Your task to perform on an android device: Open wifi settings Image 0: 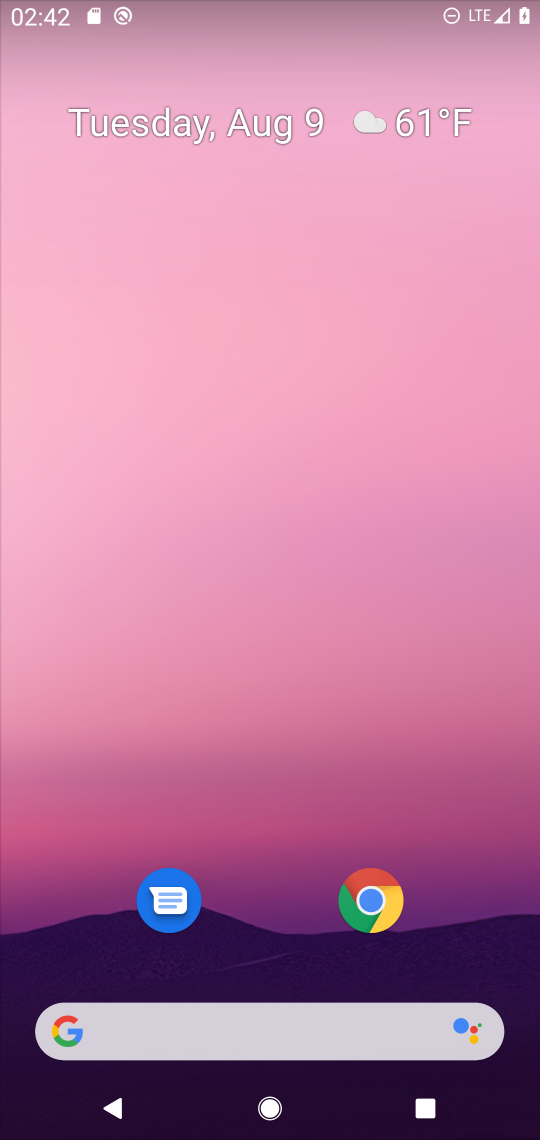
Step 0: drag from (310, 955) to (291, 304)
Your task to perform on an android device: Open wifi settings Image 1: 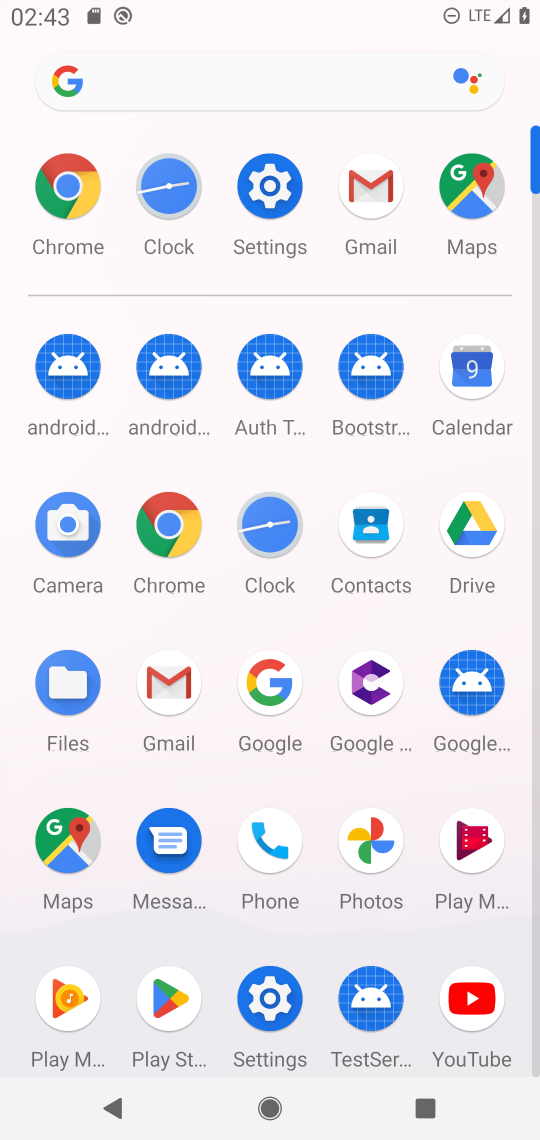
Step 1: click (271, 175)
Your task to perform on an android device: Open wifi settings Image 2: 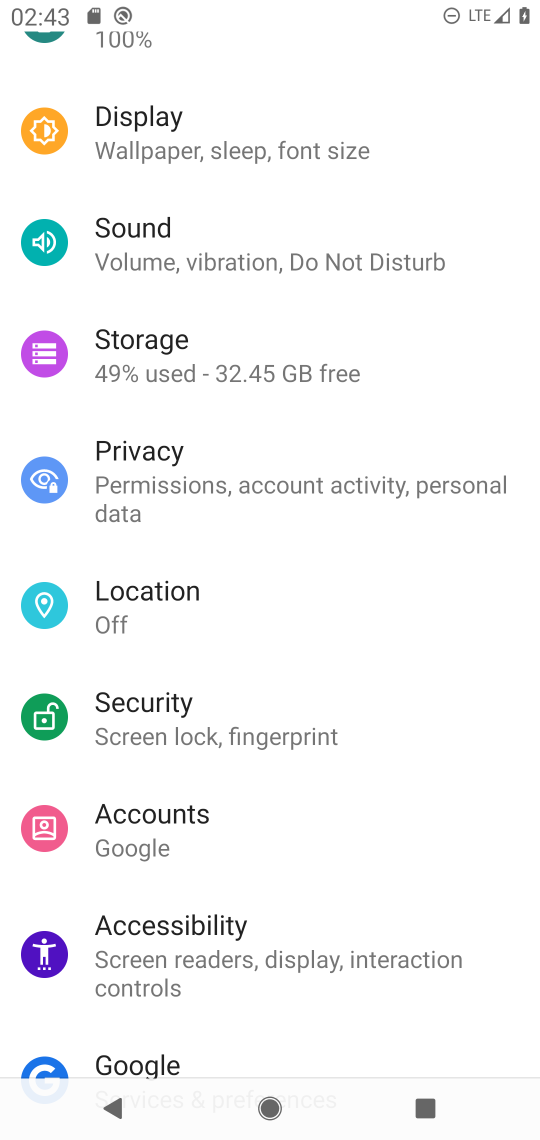
Step 2: drag from (424, 772) to (428, 499)
Your task to perform on an android device: Open wifi settings Image 3: 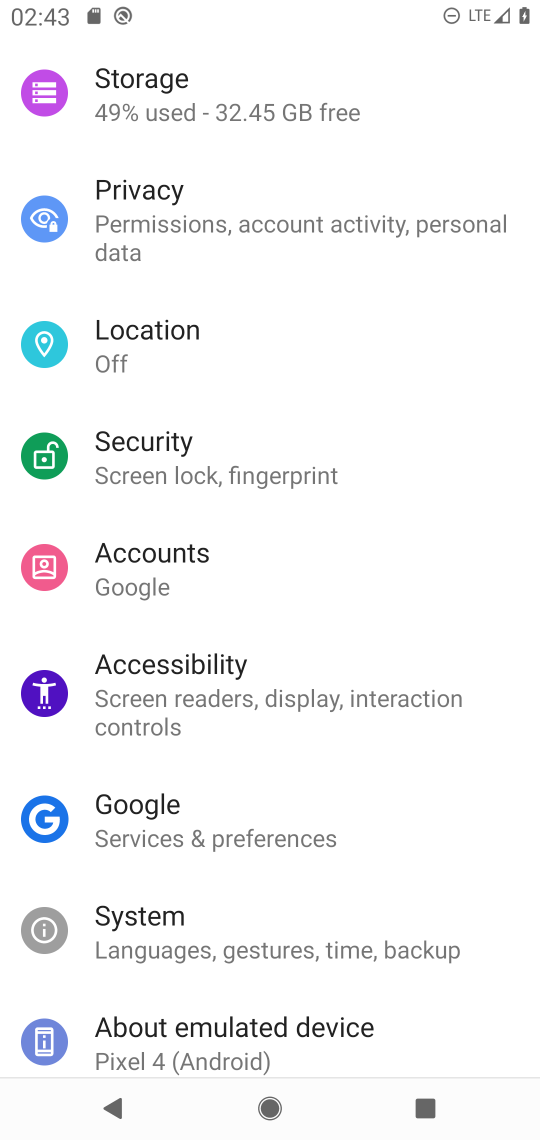
Step 3: drag from (470, 851) to (443, 529)
Your task to perform on an android device: Open wifi settings Image 4: 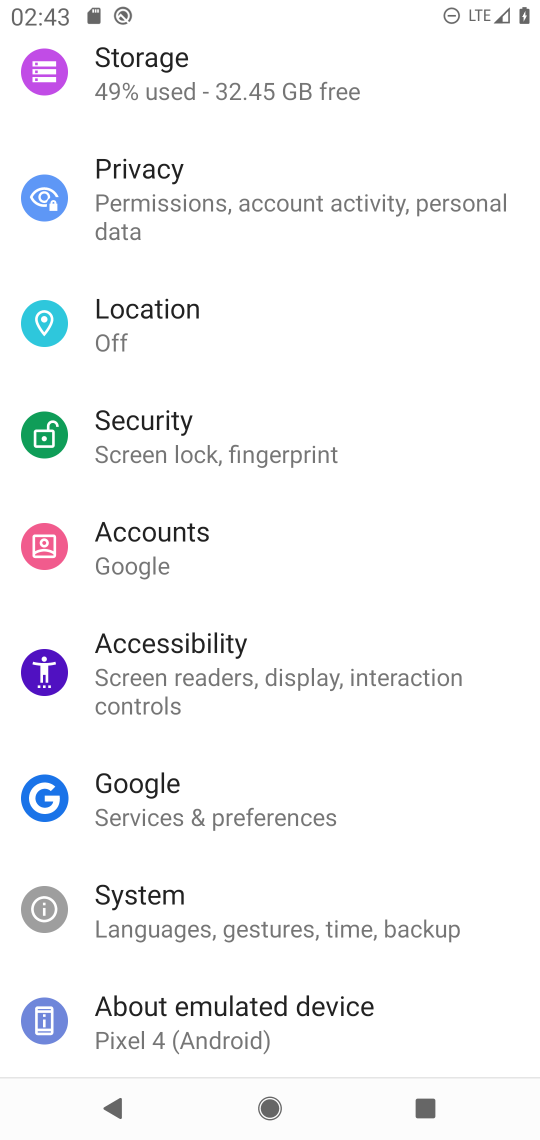
Step 4: drag from (424, 638) to (424, 390)
Your task to perform on an android device: Open wifi settings Image 5: 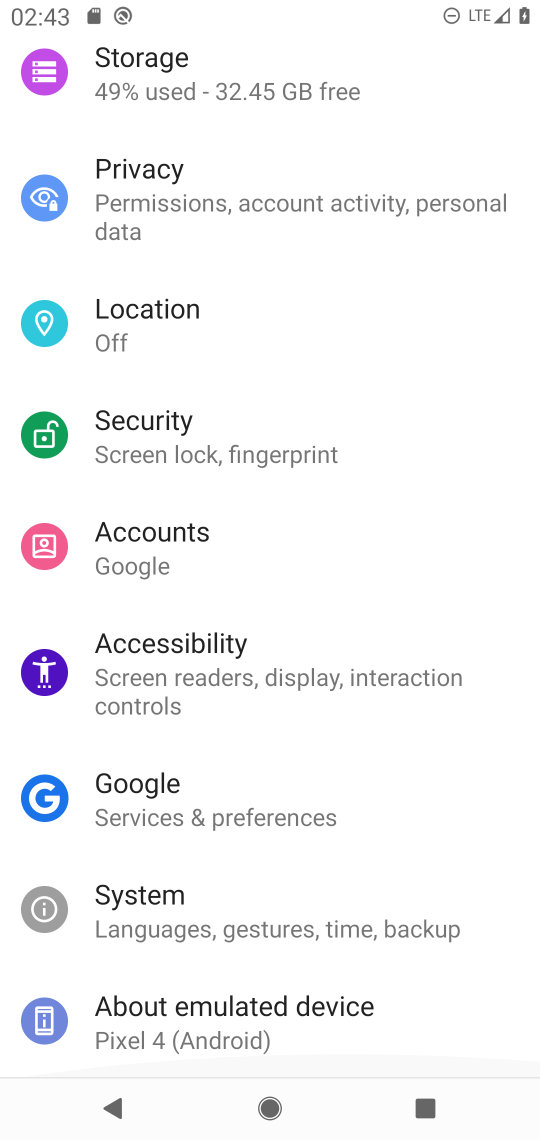
Step 5: drag from (417, 333) to (414, 482)
Your task to perform on an android device: Open wifi settings Image 6: 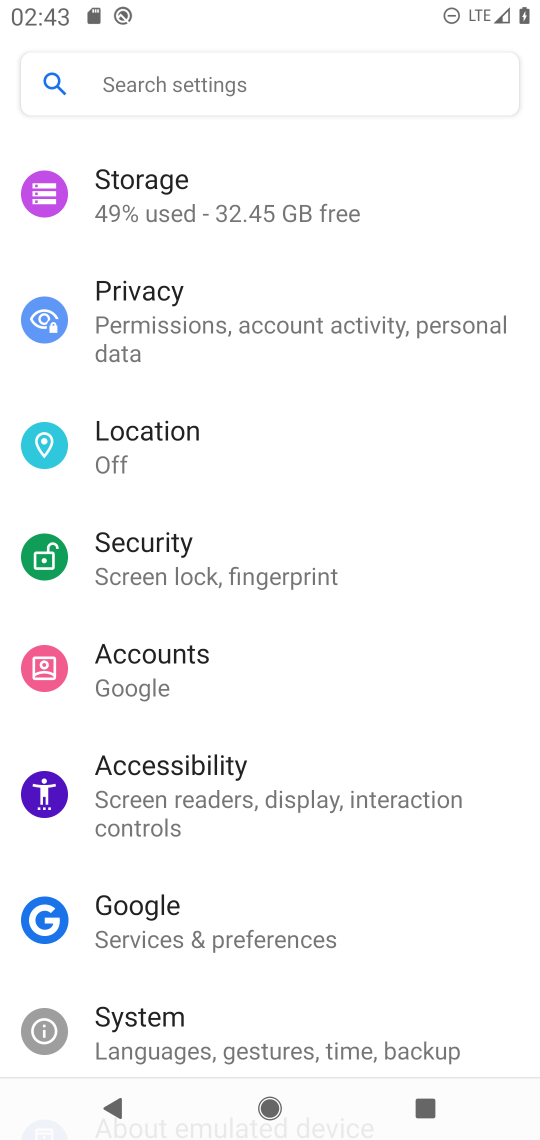
Step 6: drag from (428, 248) to (447, 514)
Your task to perform on an android device: Open wifi settings Image 7: 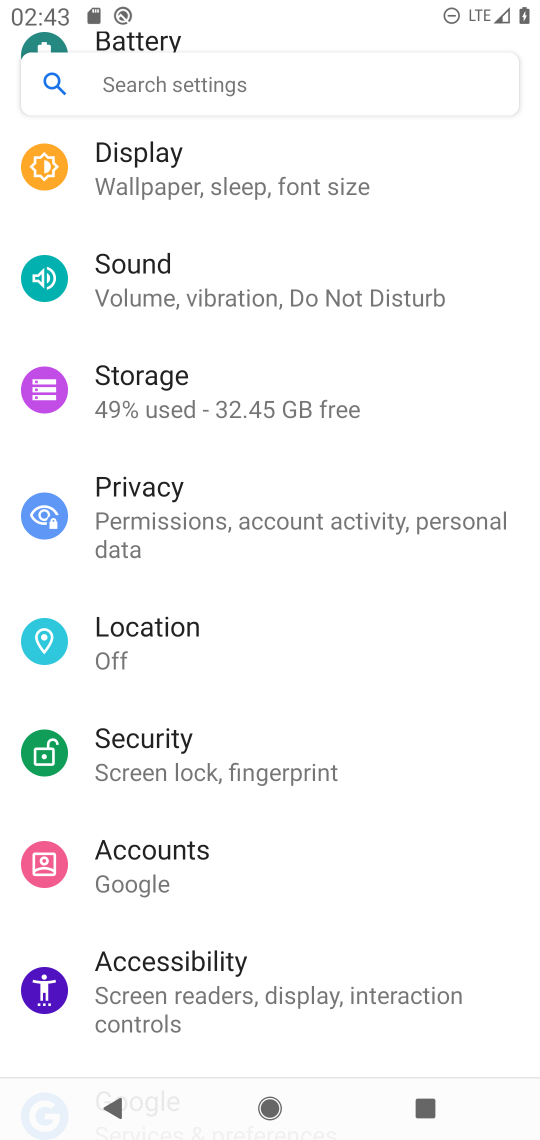
Step 7: drag from (470, 223) to (473, 423)
Your task to perform on an android device: Open wifi settings Image 8: 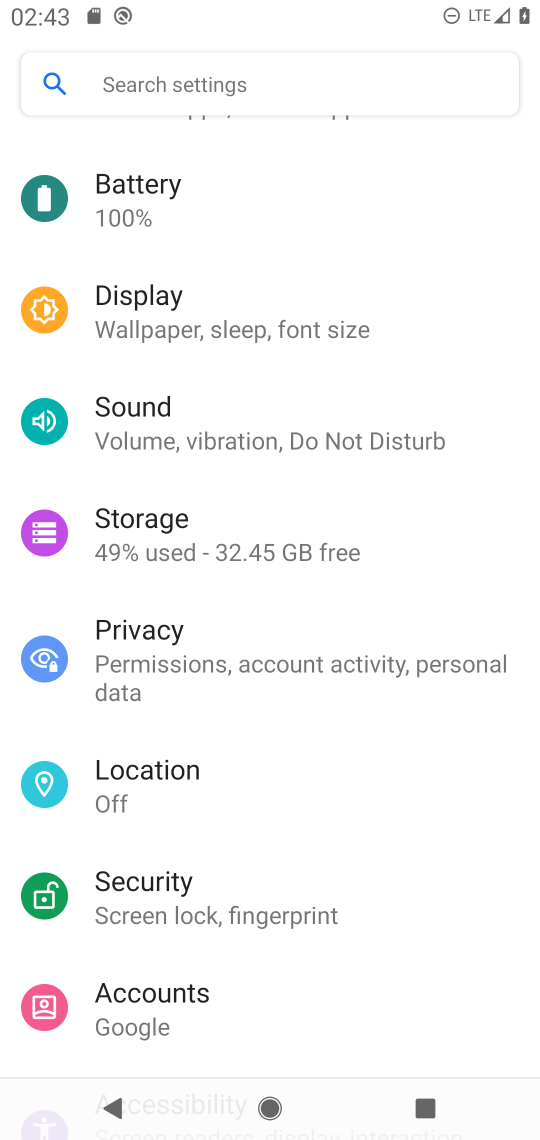
Step 8: drag from (413, 199) to (413, 545)
Your task to perform on an android device: Open wifi settings Image 9: 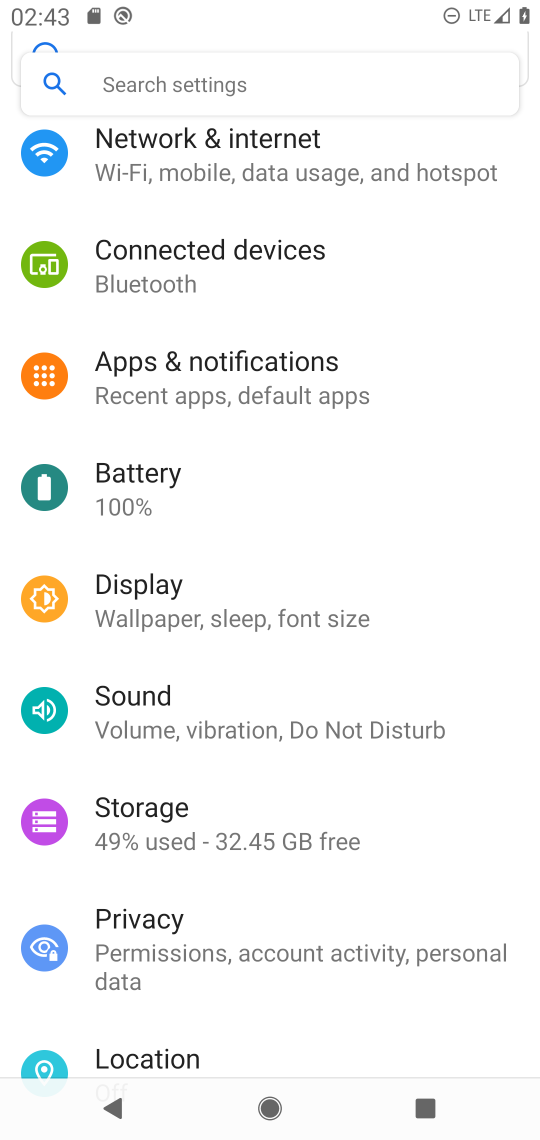
Step 9: drag from (465, 233) to (451, 503)
Your task to perform on an android device: Open wifi settings Image 10: 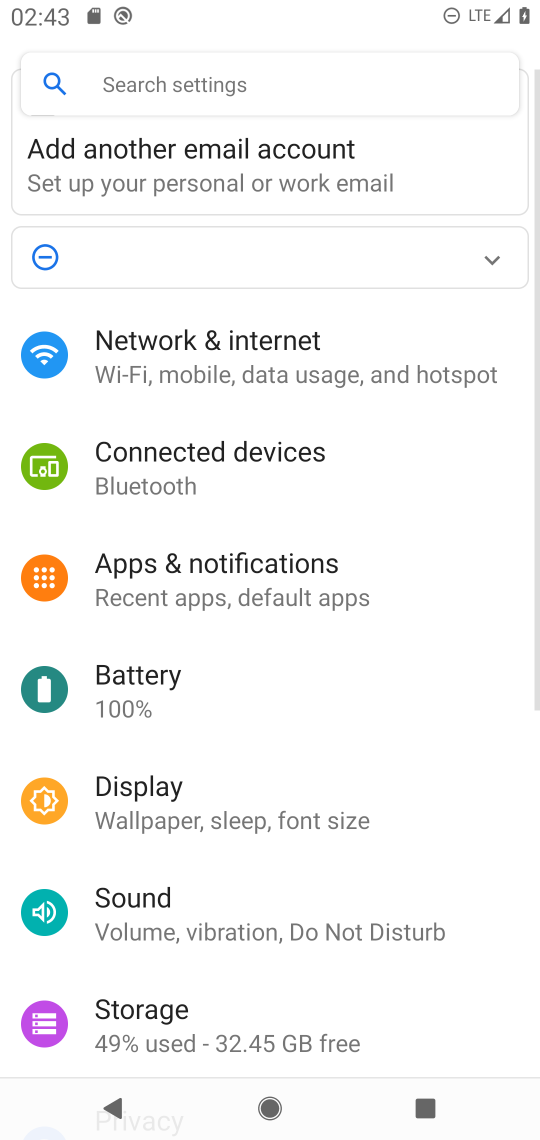
Step 10: click (403, 368)
Your task to perform on an android device: Open wifi settings Image 11: 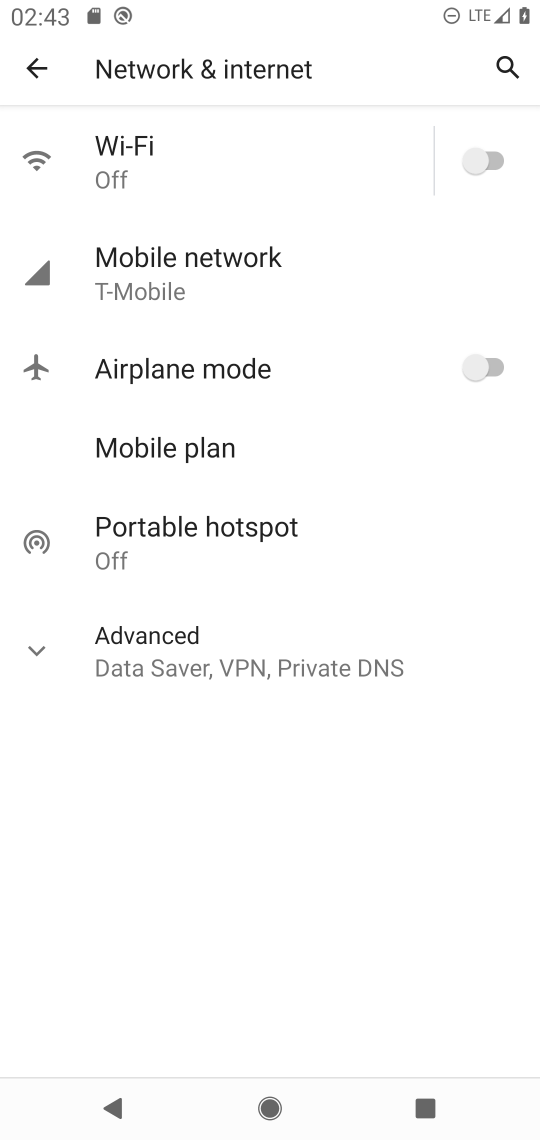
Step 11: click (127, 145)
Your task to perform on an android device: Open wifi settings Image 12: 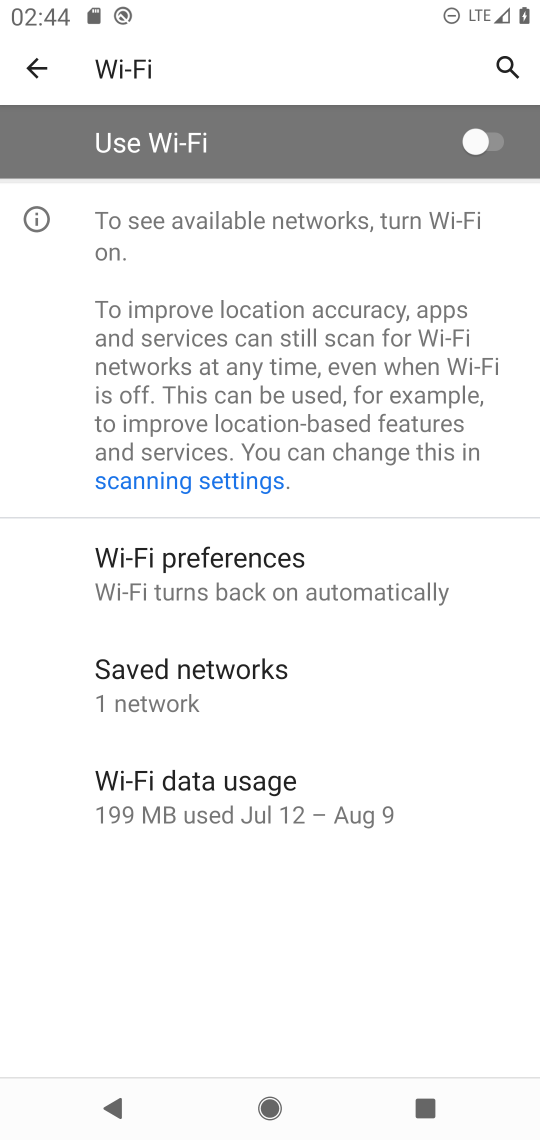
Step 12: task complete